Your task to perform on an android device: Open Google Maps Image 0: 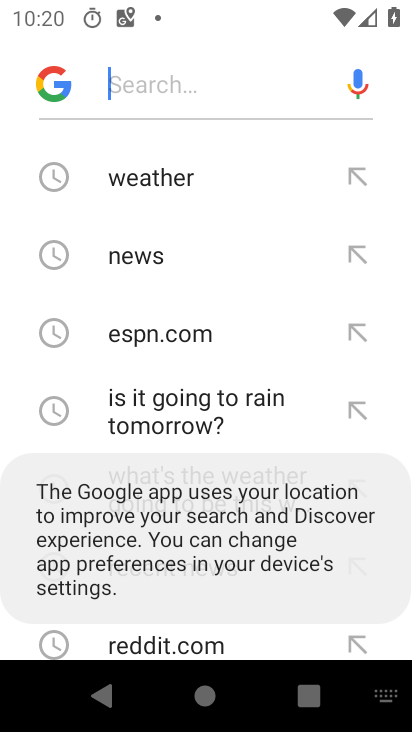
Step 0: press home button
Your task to perform on an android device: Open Google Maps Image 1: 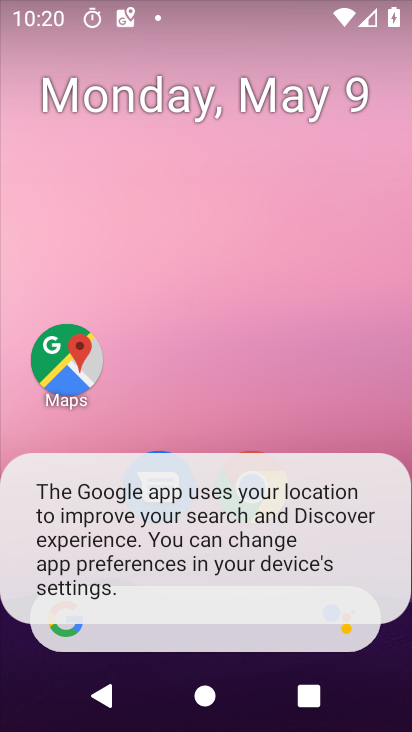
Step 1: click (77, 351)
Your task to perform on an android device: Open Google Maps Image 2: 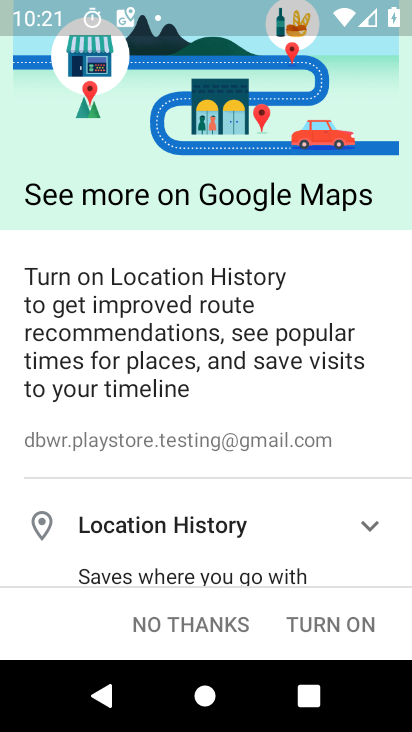
Step 2: task complete